Your task to perform on an android device: change notifications settings Image 0: 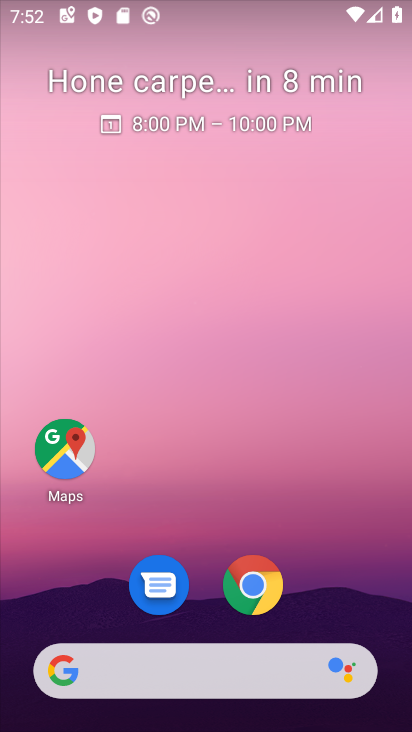
Step 0: drag from (327, 584) to (355, 89)
Your task to perform on an android device: change notifications settings Image 1: 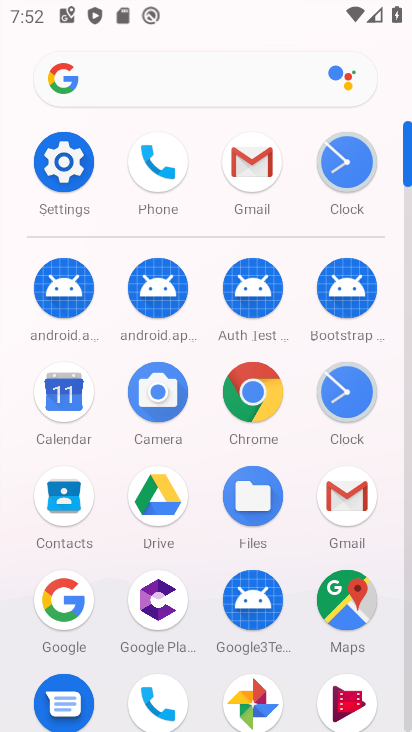
Step 1: click (70, 163)
Your task to perform on an android device: change notifications settings Image 2: 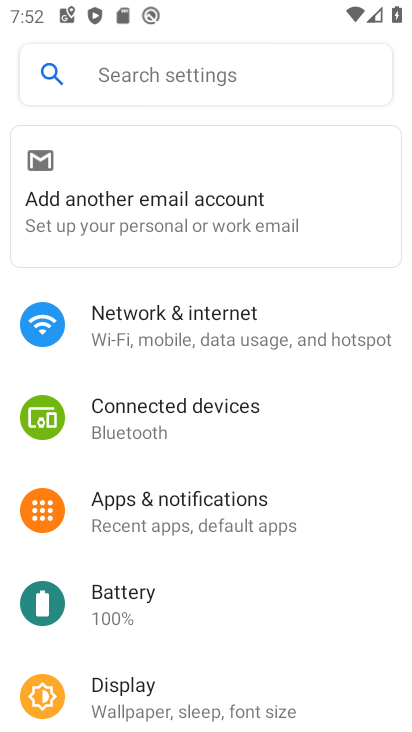
Step 2: click (187, 500)
Your task to perform on an android device: change notifications settings Image 3: 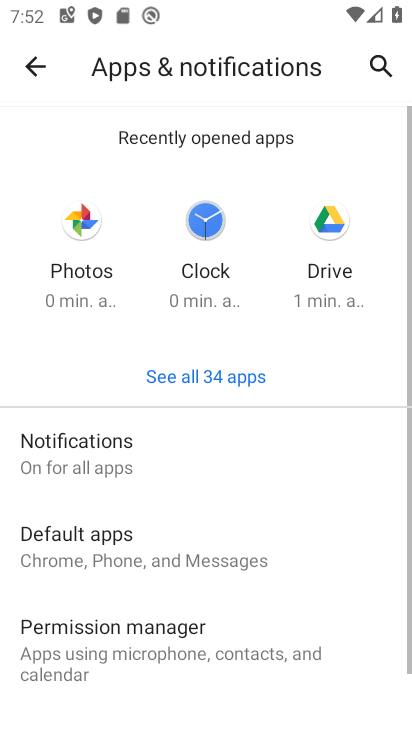
Step 3: click (192, 456)
Your task to perform on an android device: change notifications settings Image 4: 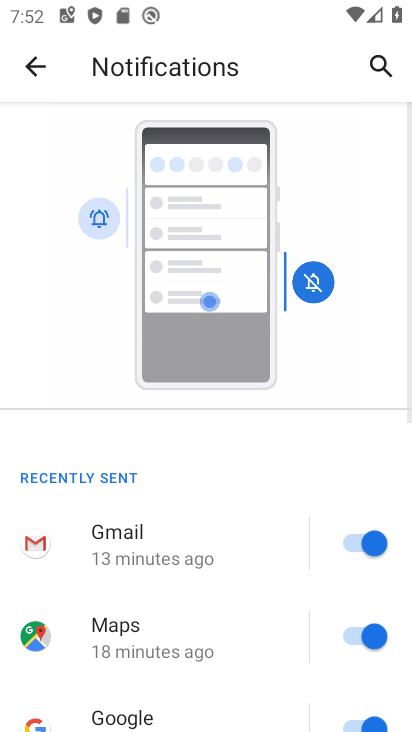
Step 4: drag from (253, 500) to (299, 106)
Your task to perform on an android device: change notifications settings Image 5: 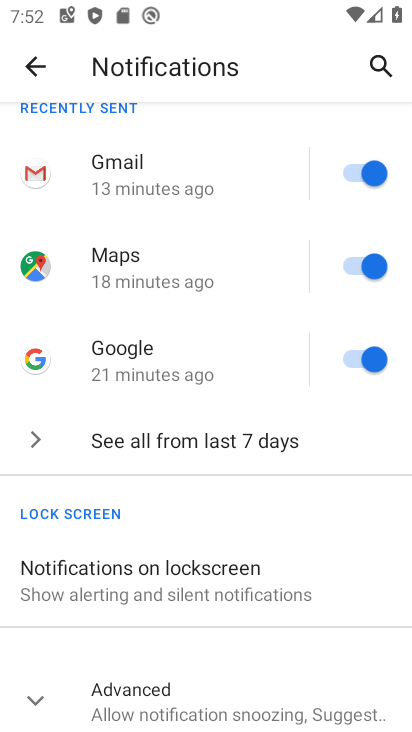
Step 5: click (246, 433)
Your task to perform on an android device: change notifications settings Image 6: 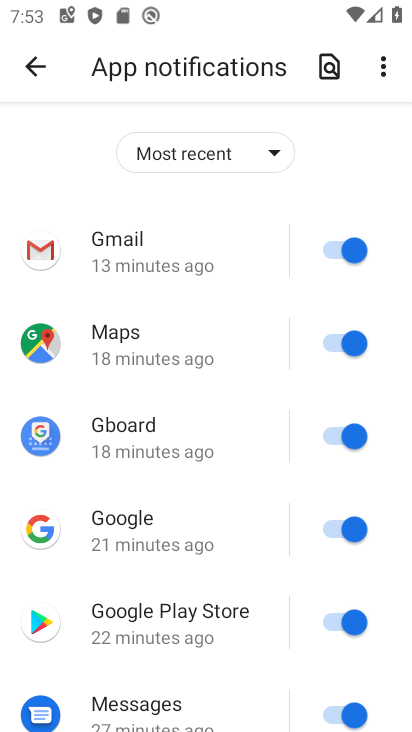
Step 6: click (335, 244)
Your task to perform on an android device: change notifications settings Image 7: 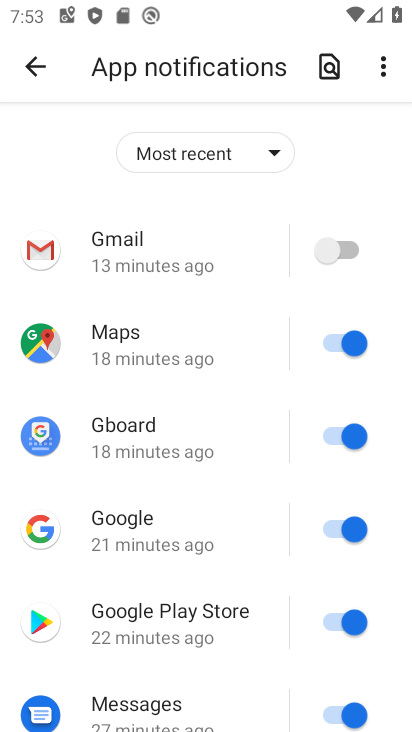
Step 7: click (337, 341)
Your task to perform on an android device: change notifications settings Image 8: 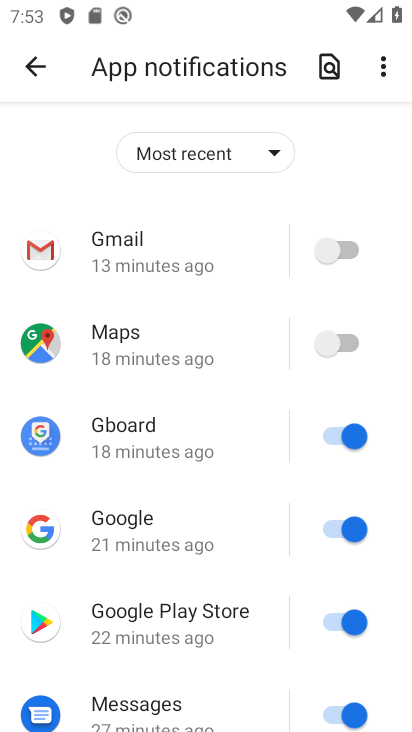
Step 8: click (333, 433)
Your task to perform on an android device: change notifications settings Image 9: 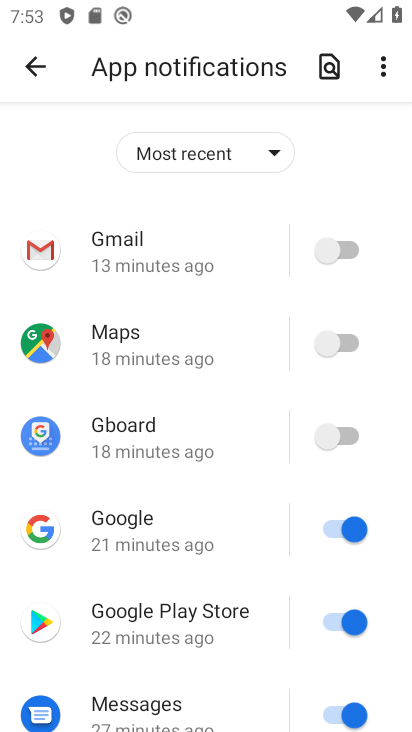
Step 9: click (338, 524)
Your task to perform on an android device: change notifications settings Image 10: 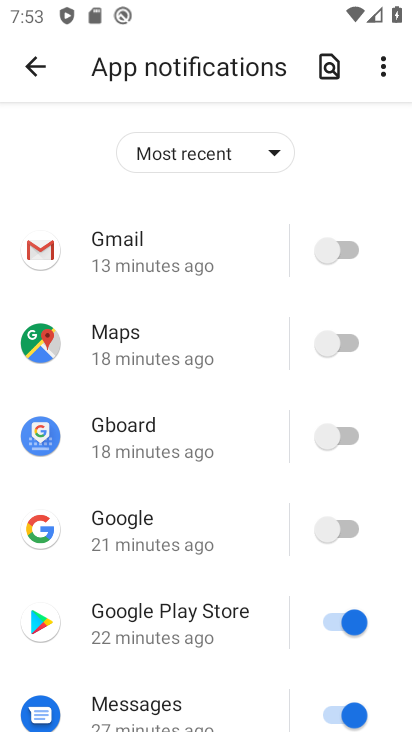
Step 10: click (331, 612)
Your task to perform on an android device: change notifications settings Image 11: 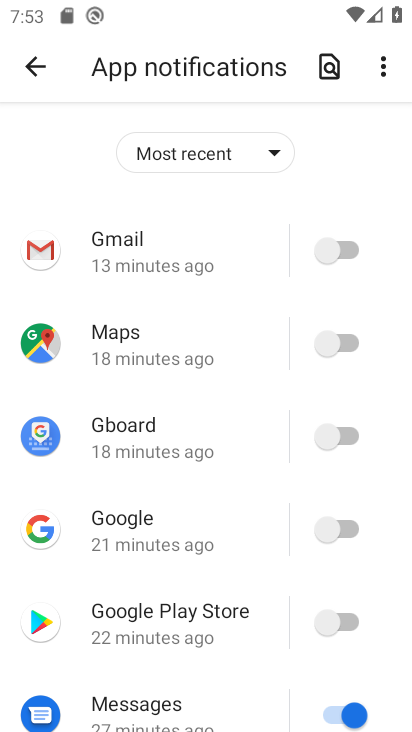
Step 11: drag from (212, 633) to (254, 112)
Your task to perform on an android device: change notifications settings Image 12: 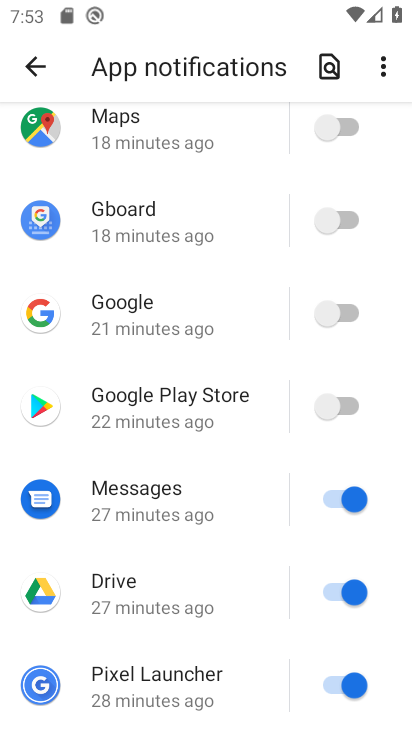
Step 12: click (336, 492)
Your task to perform on an android device: change notifications settings Image 13: 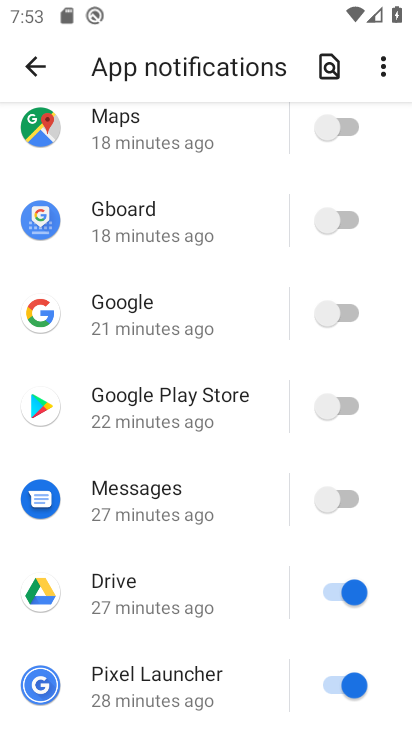
Step 13: click (338, 598)
Your task to perform on an android device: change notifications settings Image 14: 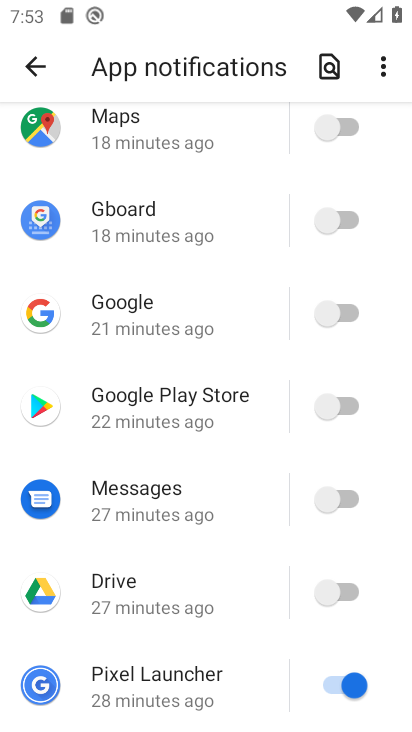
Step 14: click (338, 688)
Your task to perform on an android device: change notifications settings Image 15: 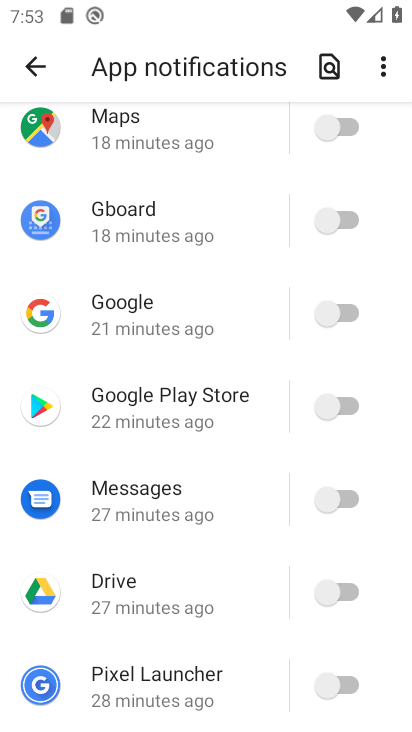
Step 15: task complete